Your task to perform on an android device: open a new tab in the chrome app Image 0: 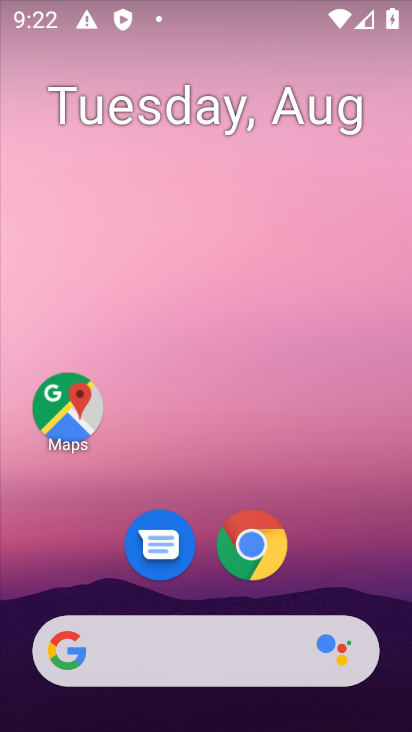
Step 0: click (263, 554)
Your task to perform on an android device: open a new tab in the chrome app Image 1: 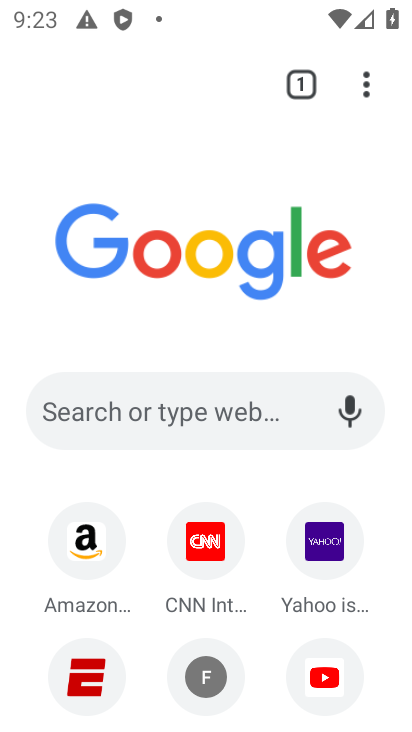
Step 1: click (295, 86)
Your task to perform on an android device: open a new tab in the chrome app Image 2: 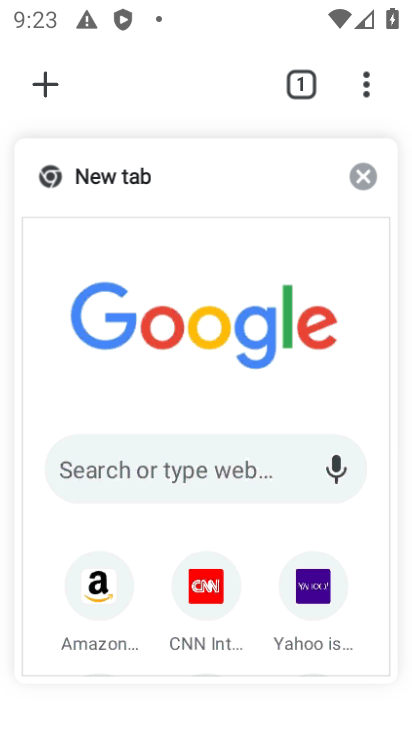
Step 2: click (52, 85)
Your task to perform on an android device: open a new tab in the chrome app Image 3: 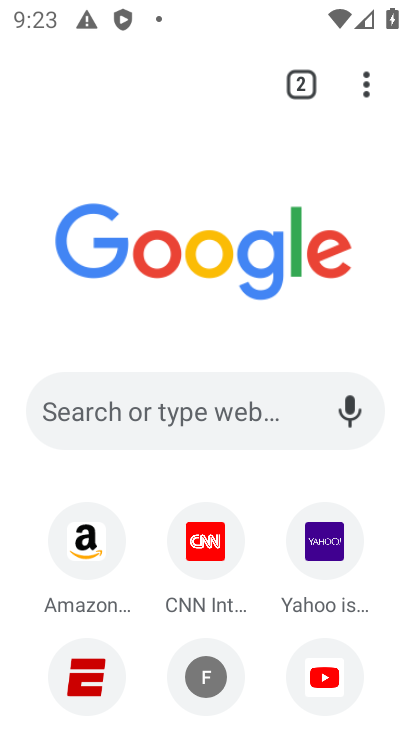
Step 3: task complete